Your task to perform on an android device: Open location settings Image 0: 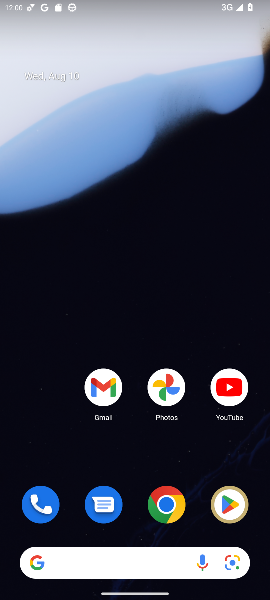
Step 0: press home button
Your task to perform on an android device: Open location settings Image 1: 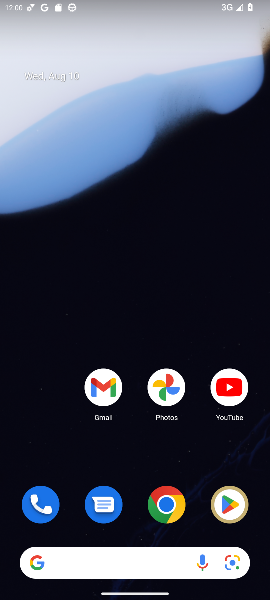
Step 1: drag from (139, 526) to (143, 113)
Your task to perform on an android device: Open location settings Image 2: 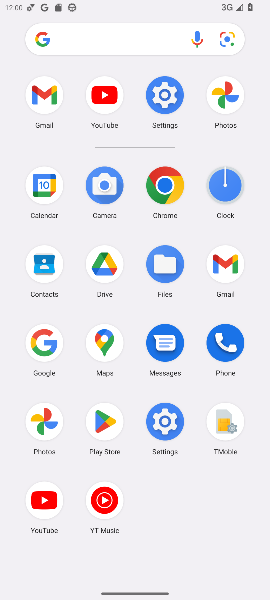
Step 2: click (162, 425)
Your task to perform on an android device: Open location settings Image 3: 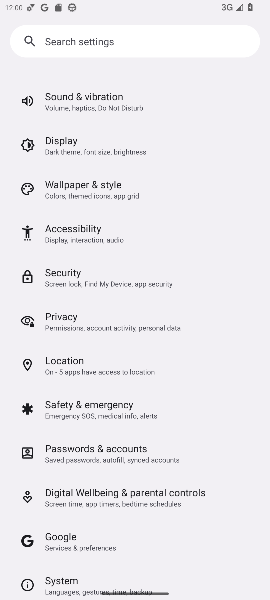
Step 3: click (62, 362)
Your task to perform on an android device: Open location settings Image 4: 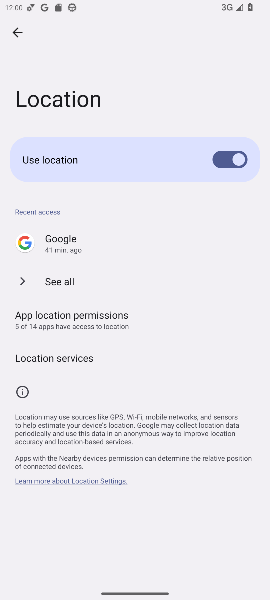
Step 4: task complete